Your task to perform on an android device: Go to Reddit.com Image 0: 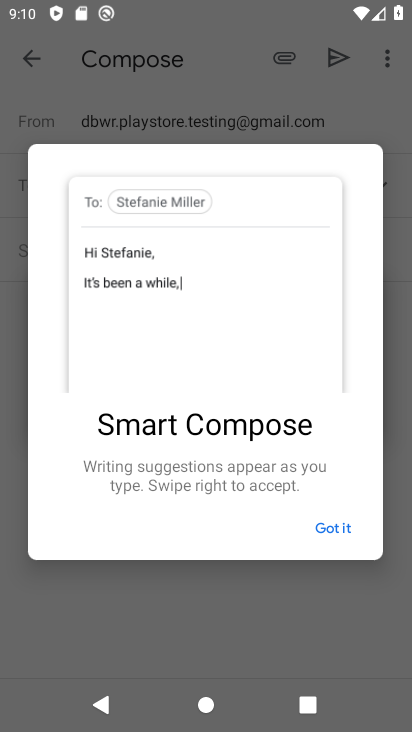
Step 0: press home button
Your task to perform on an android device: Go to Reddit.com Image 1: 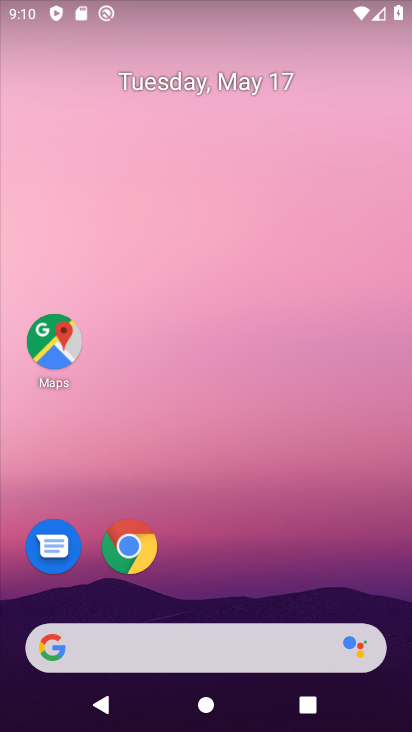
Step 1: click (127, 536)
Your task to perform on an android device: Go to Reddit.com Image 2: 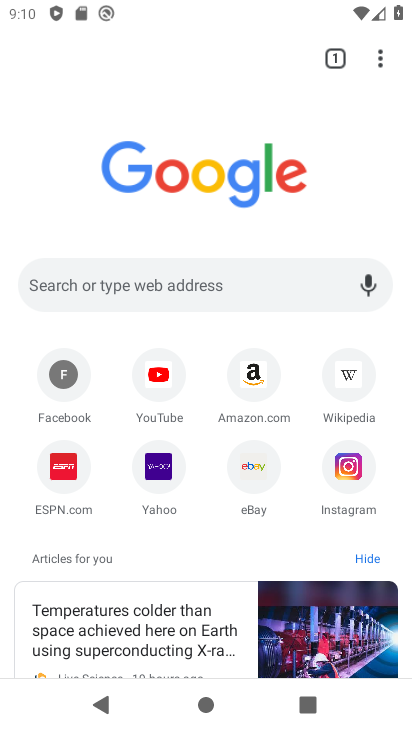
Step 2: click (166, 280)
Your task to perform on an android device: Go to Reddit.com Image 3: 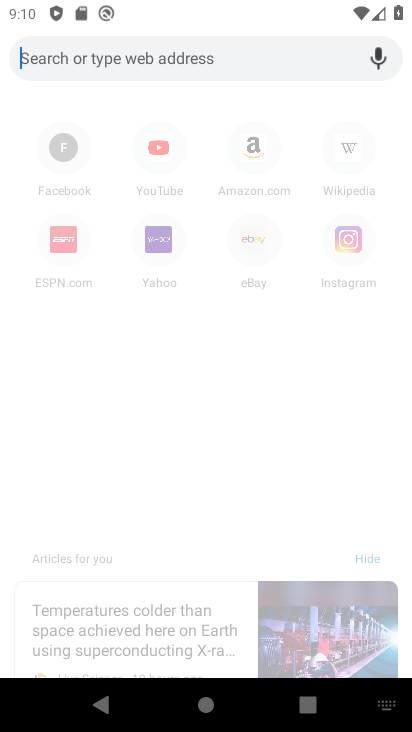
Step 3: type "Reddit.com"
Your task to perform on an android device: Go to Reddit.com Image 4: 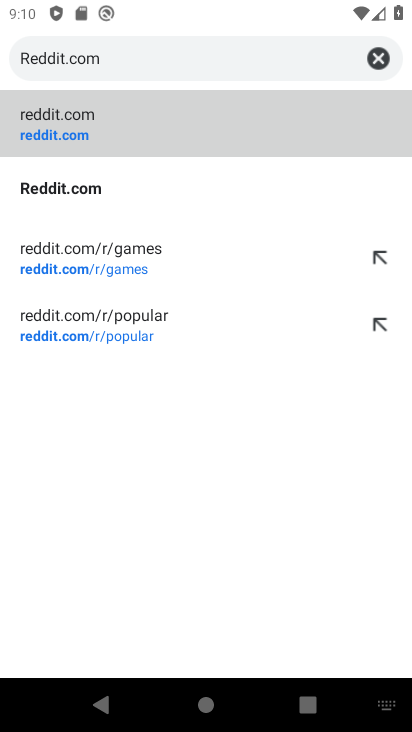
Step 4: click (157, 128)
Your task to perform on an android device: Go to Reddit.com Image 5: 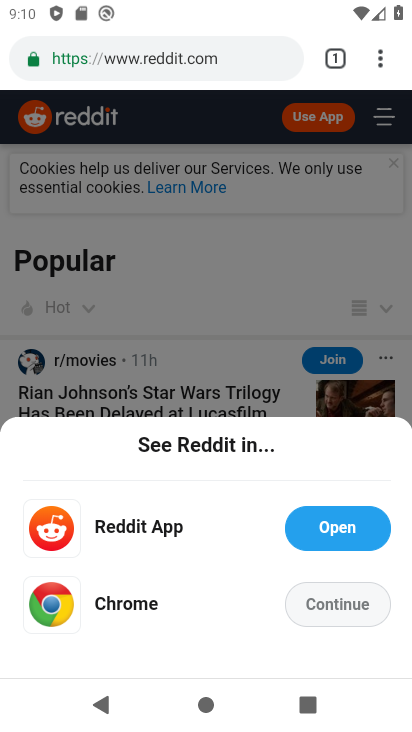
Step 5: task complete